Your task to perform on an android device: What's the weather going to be this weekend? Image 0: 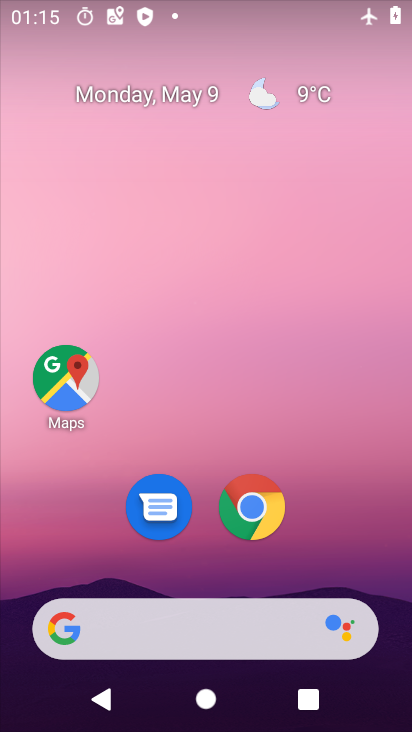
Step 0: click (256, 94)
Your task to perform on an android device: What's the weather going to be this weekend? Image 1: 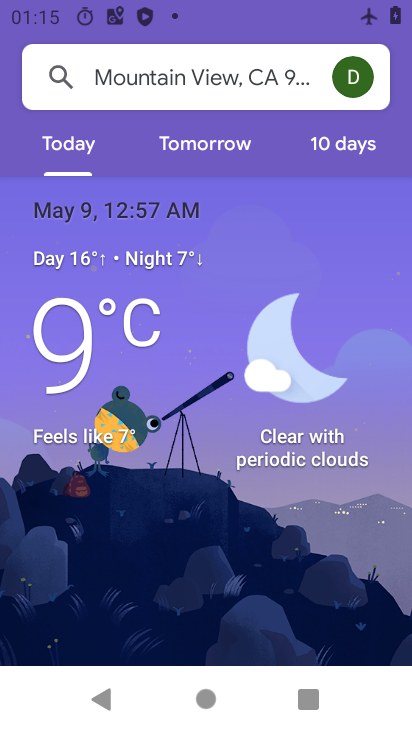
Step 1: click (343, 135)
Your task to perform on an android device: What's the weather going to be this weekend? Image 2: 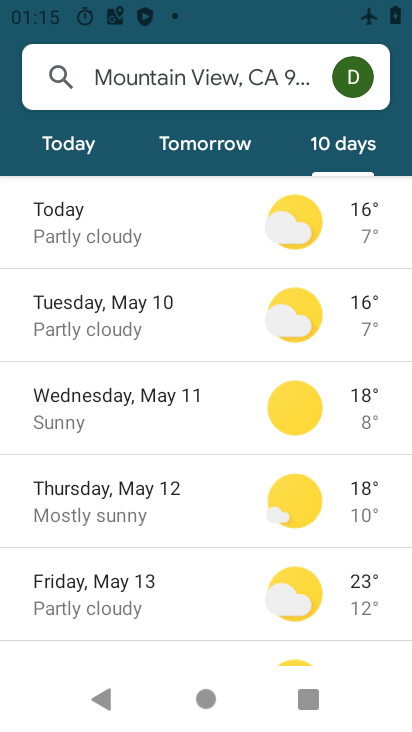
Step 2: drag from (160, 595) to (174, 338)
Your task to perform on an android device: What's the weather going to be this weekend? Image 3: 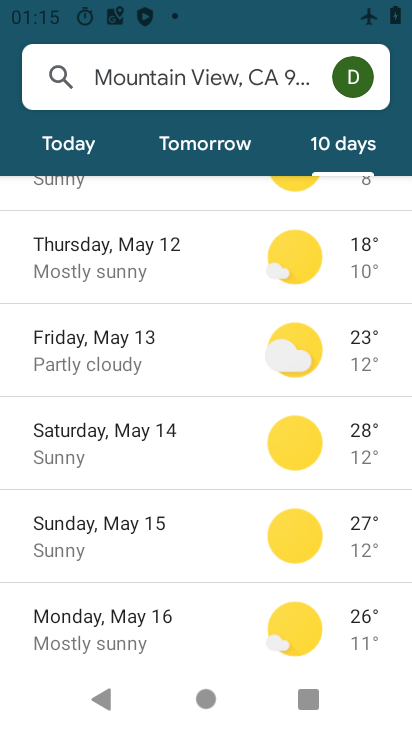
Step 3: click (149, 431)
Your task to perform on an android device: What's the weather going to be this weekend? Image 4: 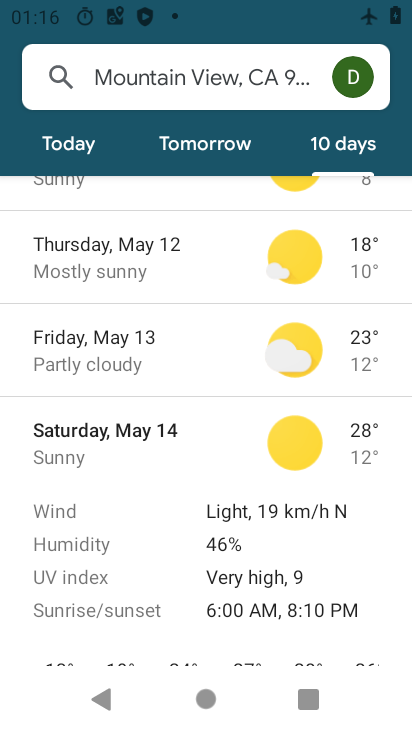
Step 4: task complete